Your task to perform on an android device: uninstall "Google Photos" Image 0: 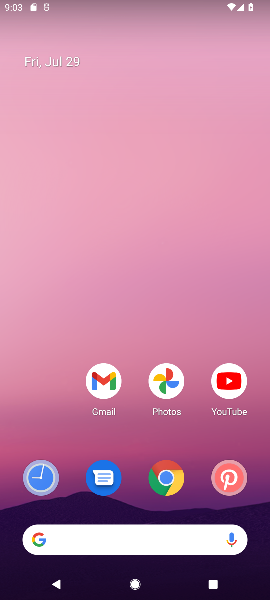
Step 0: click (170, 381)
Your task to perform on an android device: uninstall "Google Photos" Image 1: 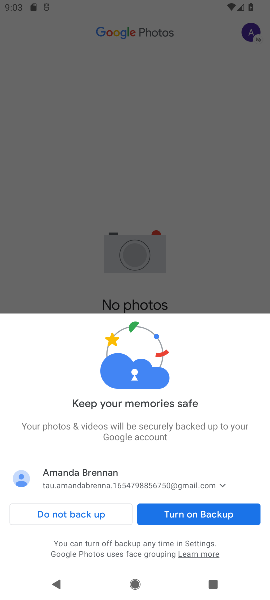
Step 1: click (59, 182)
Your task to perform on an android device: uninstall "Google Photos" Image 2: 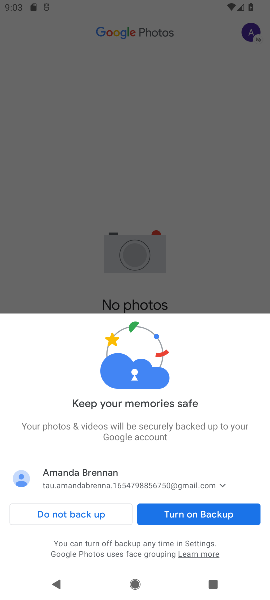
Step 2: press home button
Your task to perform on an android device: uninstall "Google Photos" Image 3: 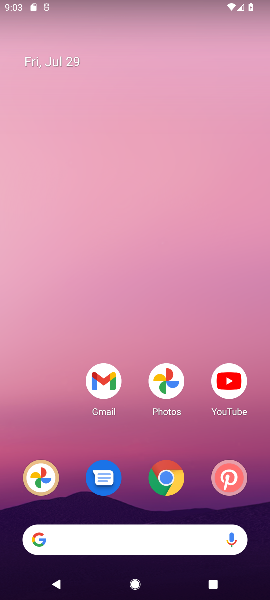
Step 3: drag from (61, 390) to (159, 4)
Your task to perform on an android device: uninstall "Google Photos" Image 4: 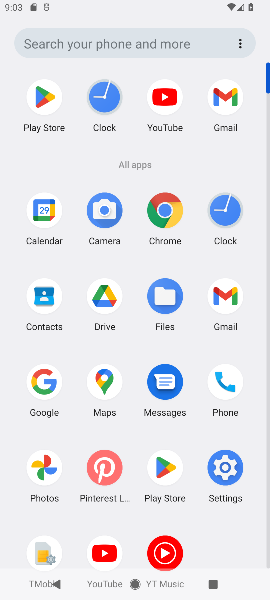
Step 4: click (173, 469)
Your task to perform on an android device: uninstall "Google Photos" Image 5: 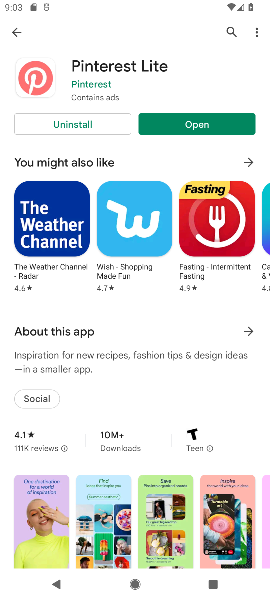
Step 5: click (225, 29)
Your task to perform on an android device: uninstall "Google Photos" Image 6: 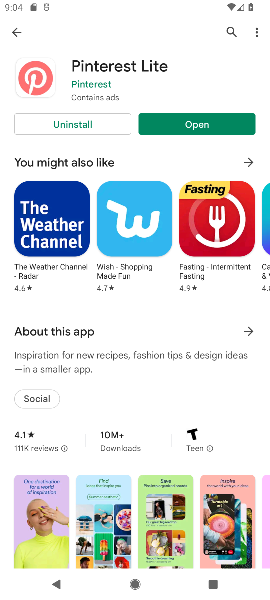
Step 6: click (231, 30)
Your task to perform on an android device: uninstall "Google Photos" Image 7: 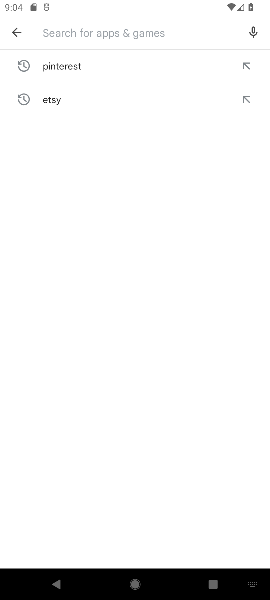
Step 7: click (100, 36)
Your task to perform on an android device: uninstall "Google Photos" Image 8: 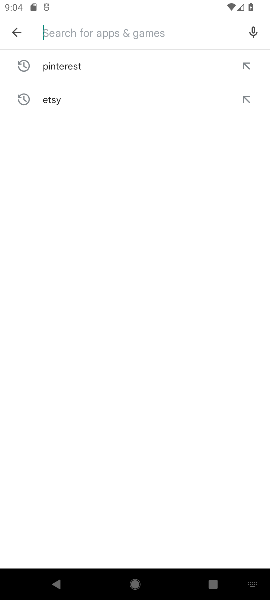
Step 8: type "google photos"
Your task to perform on an android device: uninstall "Google Photos" Image 9: 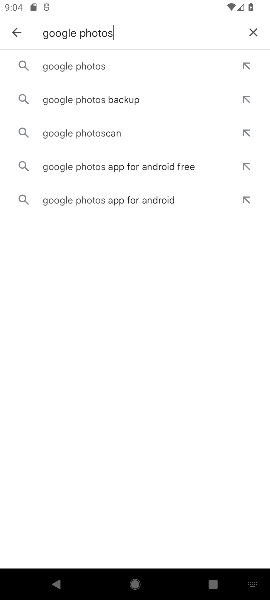
Step 9: click (92, 63)
Your task to perform on an android device: uninstall "Google Photos" Image 10: 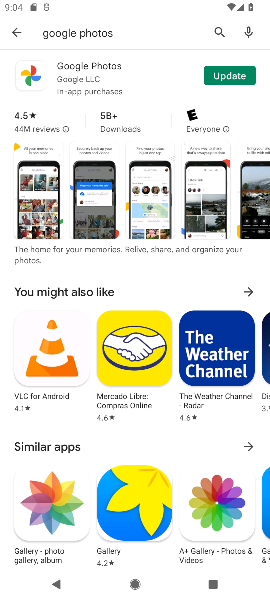
Step 10: click (99, 76)
Your task to perform on an android device: uninstall "Google Photos" Image 11: 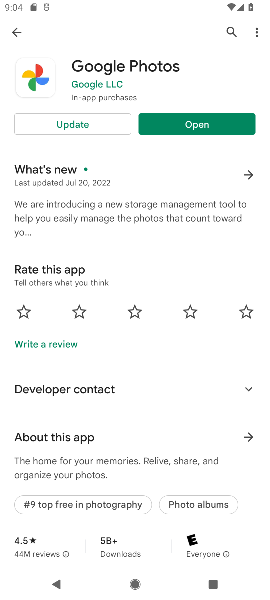
Step 11: task complete